Your task to perform on an android device: Play the last video I watched on Youtube Image 0: 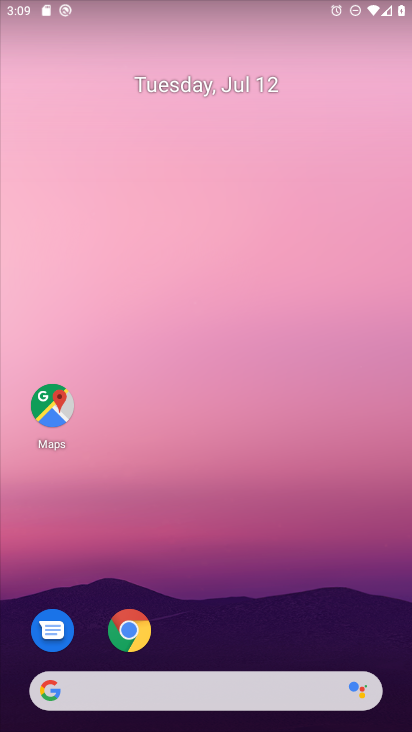
Step 0: drag from (237, 644) to (237, 240)
Your task to perform on an android device: Play the last video I watched on Youtube Image 1: 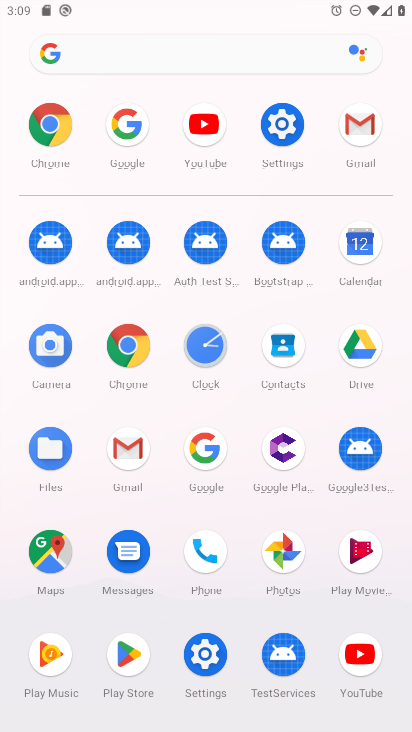
Step 1: click (198, 113)
Your task to perform on an android device: Play the last video I watched on Youtube Image 2: 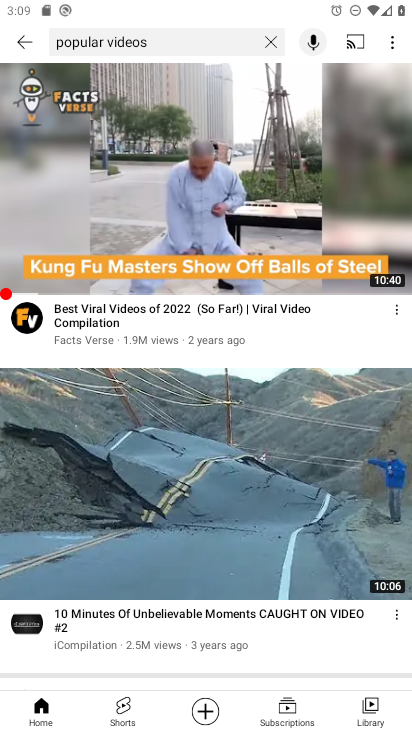
Step 2: click (368, 714)
Your task to perform on an android device: Play the last video I watched on Youtube Image 3: 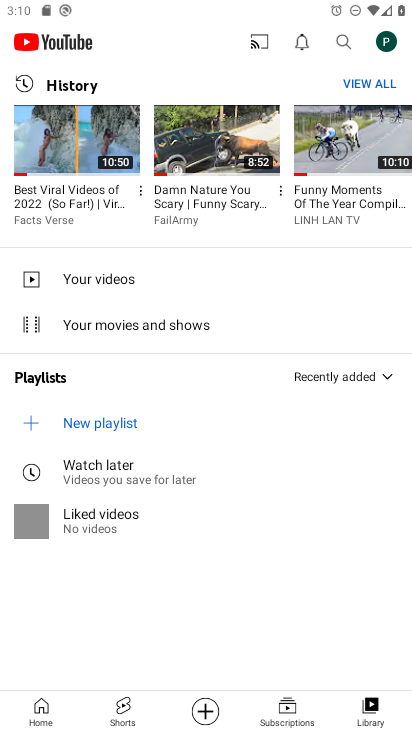
Step 3: drag from (200, 298) to (213, 550)
Your task to perform on an android device: Play the last video I watched on Youtube Image 4: 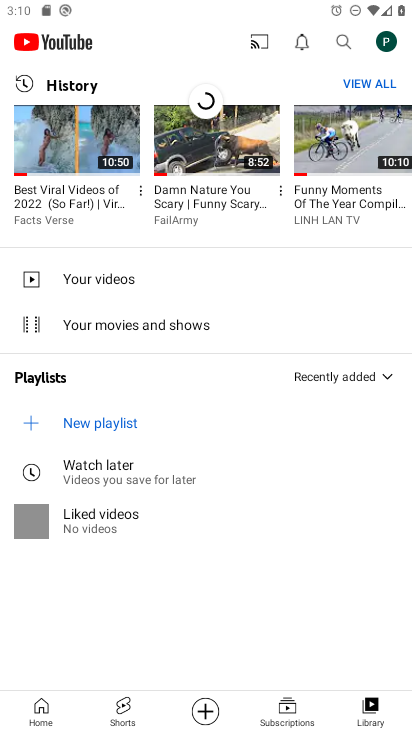
Step 4: click (69, 167)
Your task to perform on an android device: Play the last video I watched on Youtube Image 5: 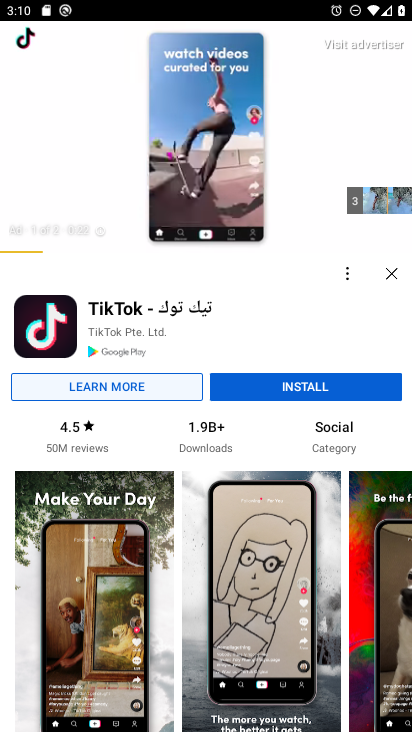
Step 5: click (80, 162)
Your task to perform on an android device: Play the last video I watched on Youtube Image 6: 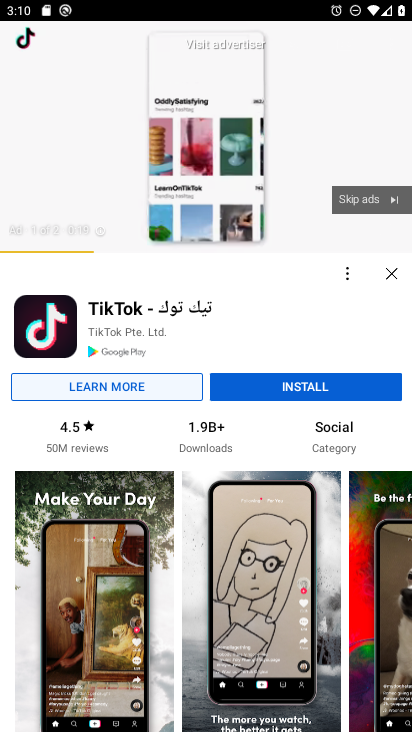
Step 6: click (387, 280)
Your task to perform on an android device: Play the last video I watched on Youtube Image 7: 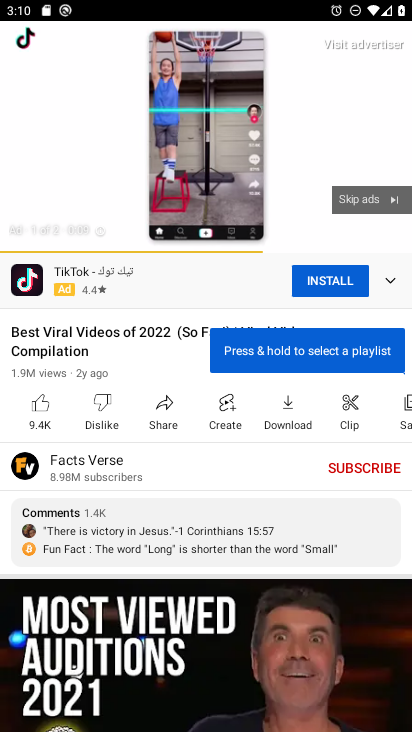
Step 7: click (372, 185)
Your task to perform on an android device: Play the last video I watched on Youtube Image 8: 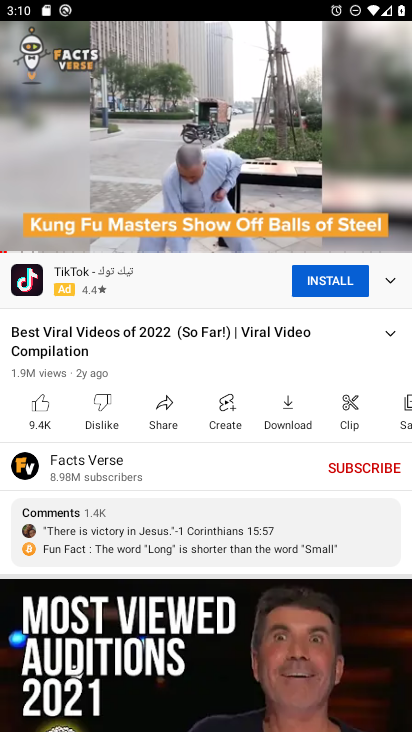
Step 8: click (201, 131)
Your task to perform on an android device: Play the last video I watched on Youtube Image 9: 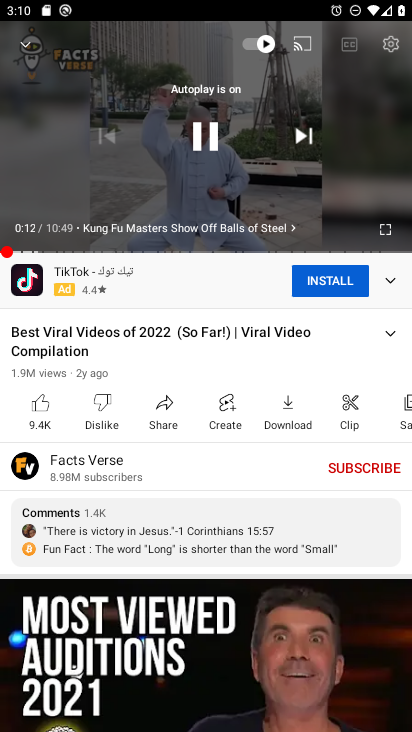
Step 9: click (220, 120)
Your task to perform on an android device: Play the last video I watched on Youtube Image 10: 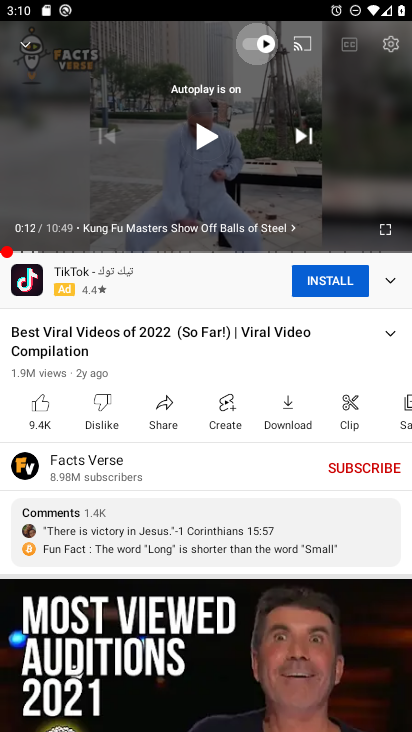
Step 10: click (205, 129)
Your task to perform on an android device: Play the last video I watched on Youtube Image 11: 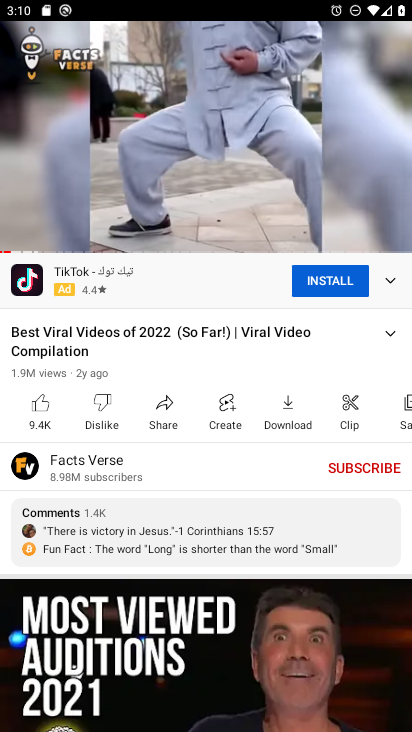
Step 11: click (193, 138)
Your task to perform on an android device: Play the last video I watched on Youtube Image 12: 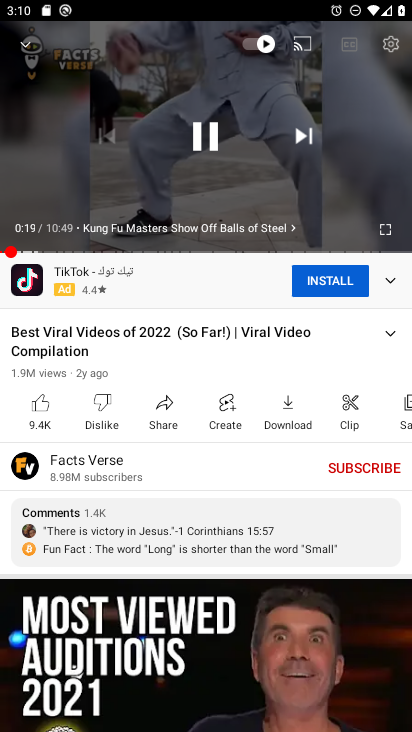
Step 12: click (196, 143)
Your task to perform on an android device: Play the last video I watched on Youtube Image 13: 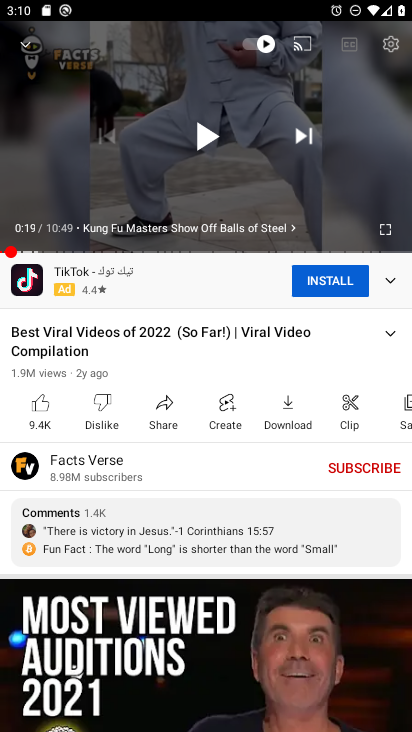
Step 13: task complete